Your task to perform on an android device: Open Reddit.com Image 0: 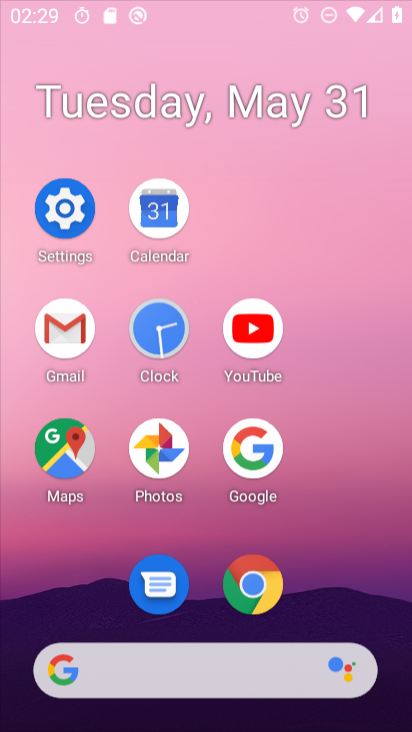
Step 0: click (84, 199)
Your task to perform on an android device: Open Reddit.com Image 1: 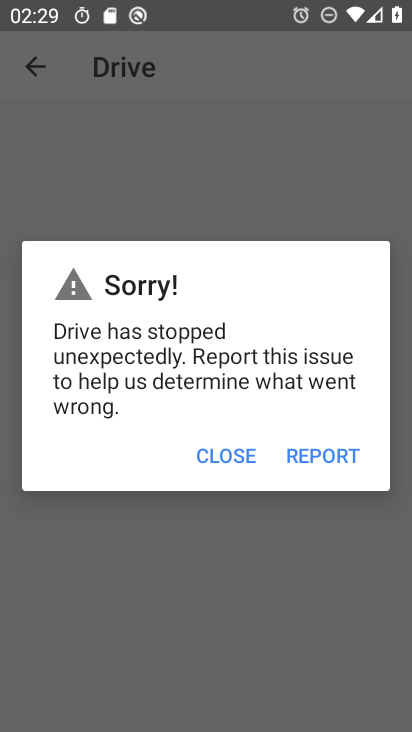
Step 1: press back button
Your task to perform on an android device: Open Reddit.com Image 2: 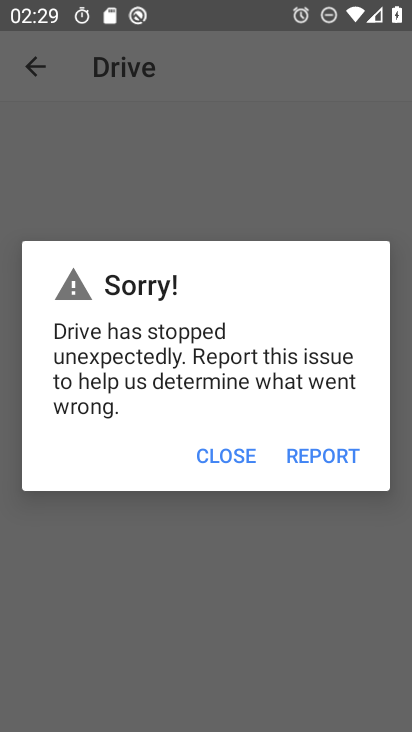
Step 2: press home button
Your task to perform on an android device: Open Reddit.com Image 3: 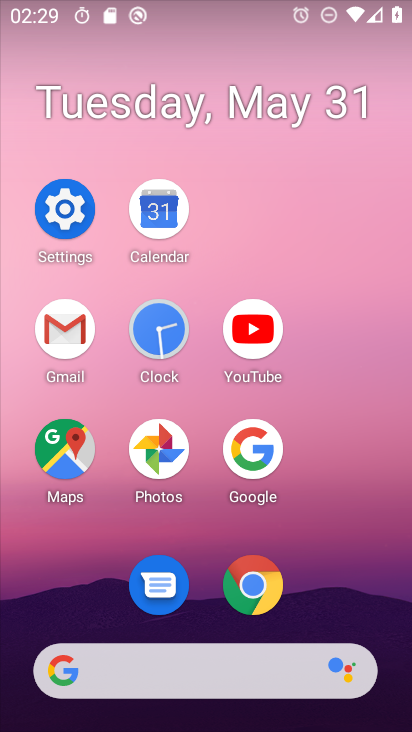
Step 3: click (267, 571)
Your task to perform on an android device: Open Reddit.com Image 4: 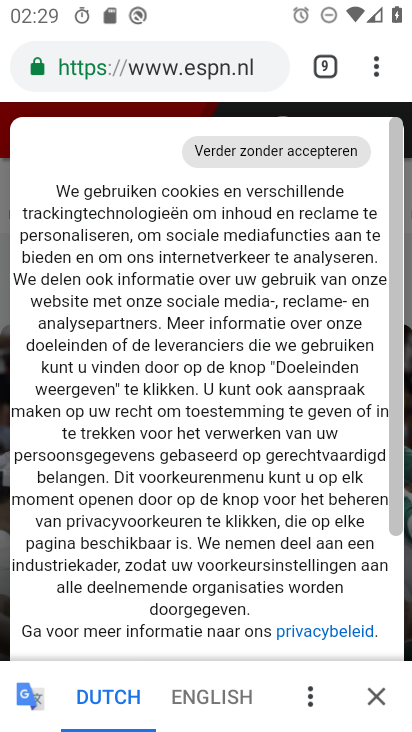
Step 4: click (341, 73)
Your task to perform on an android device: Open Reddit.com Image 5: 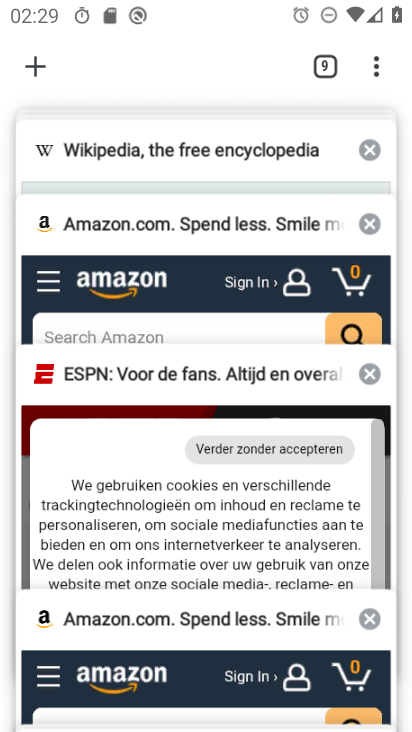
Step 5: drag from (227, 282) to (221, 497)
Your task to perform on an android device: Open Reddit.com Image 6: 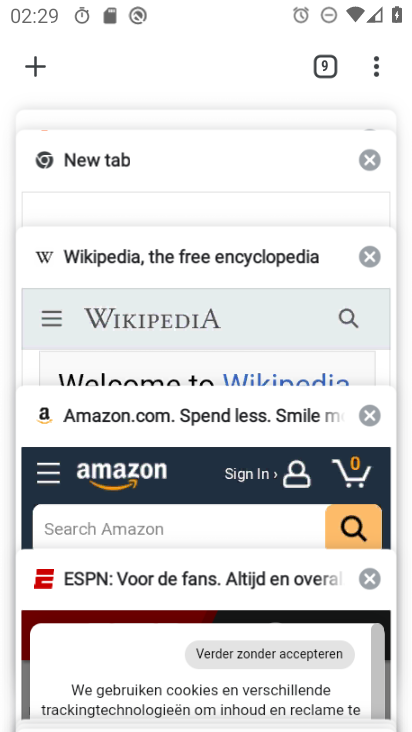
Step 6: drag from (200, 272) to (249, 515)
Your task to perform on an android device: Open Reddit.com Image 7: 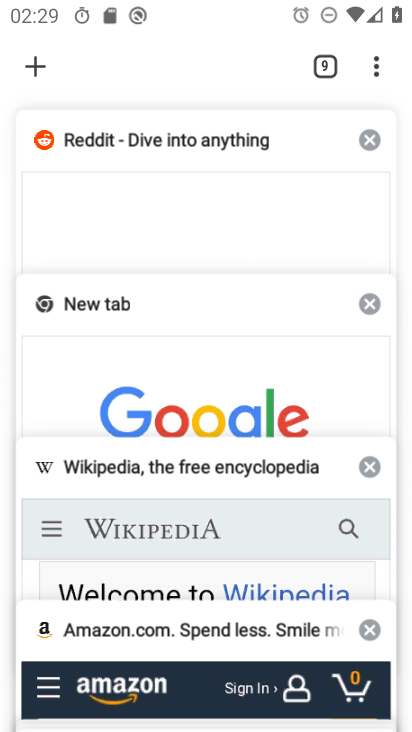
Step 7: click (191, 161)
Your task to perform on an android device: Open Reddit.com Image 8: 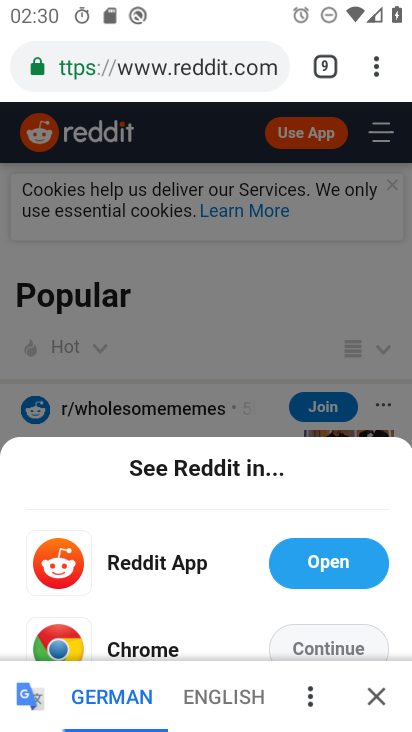
Step 8: task complete